Your task to perform on an android device: open app "Venmo" (install if not already installed) and enter user name: "bleedings@gmail.com" and password: "copied" Image 0: 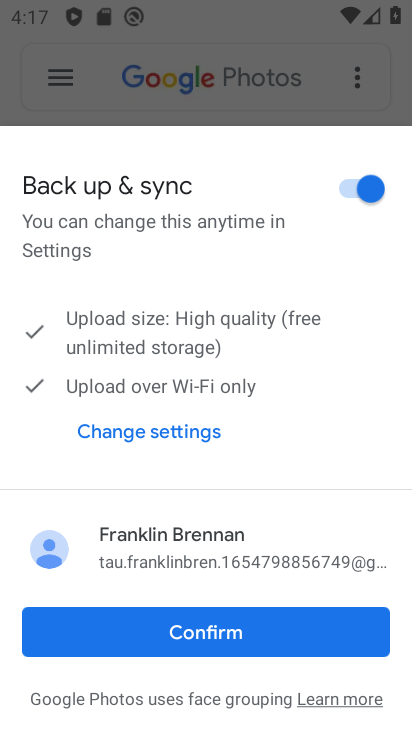
Step 0: press home button
Your task to perform on an android device: open app "Venmo" (install if not already installed) and enter user name: "bleedings@gmail.com" and password: "copied" Image 1: 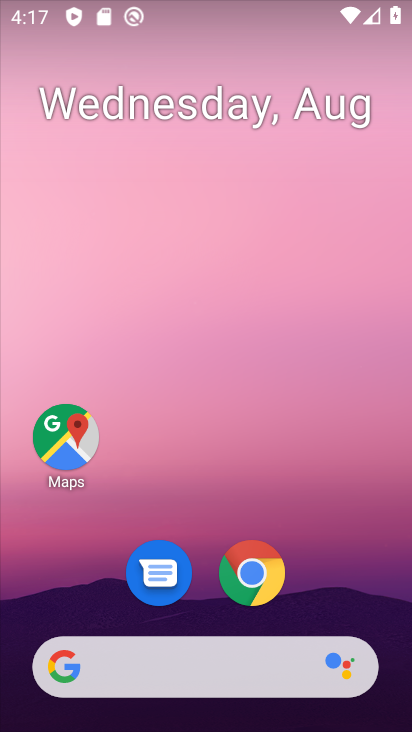
Step 1: drag from (188, 522) to (110, 122)
Your task to perform on an android device: open app "Venmo" (install if not already installed) and enter user name: "bleedings@gmail.com" and password: "copied" Image 2: 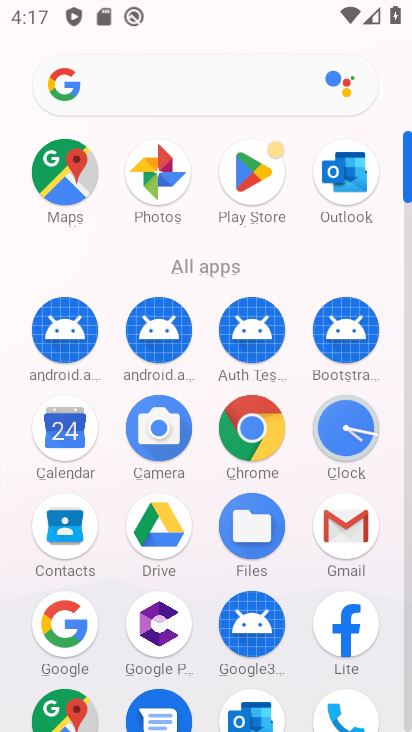
Step 2: click (233, 175)
Your task to perform on an android device: open app "Venmo" (install if not already installed) and enter user name: "bleedings@gmail.com" and password: "copied" Image 3: 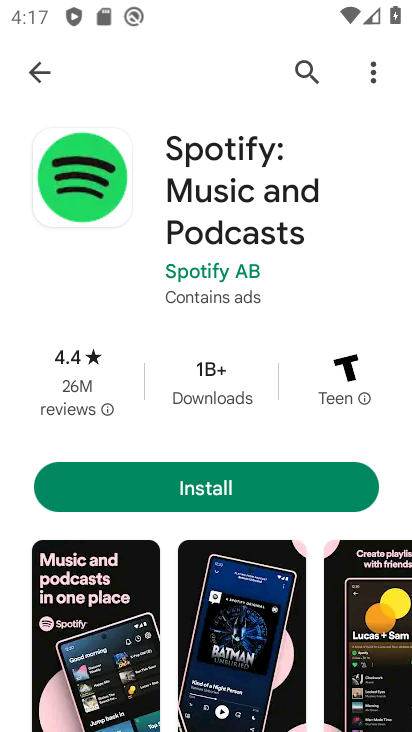
Step 3: click (299, 63)
Your task to perform on an android device: open app "Venmo" (install if not already installed) and enter user name: "bleedings@gmail.com" and password: "copied" Image 4: 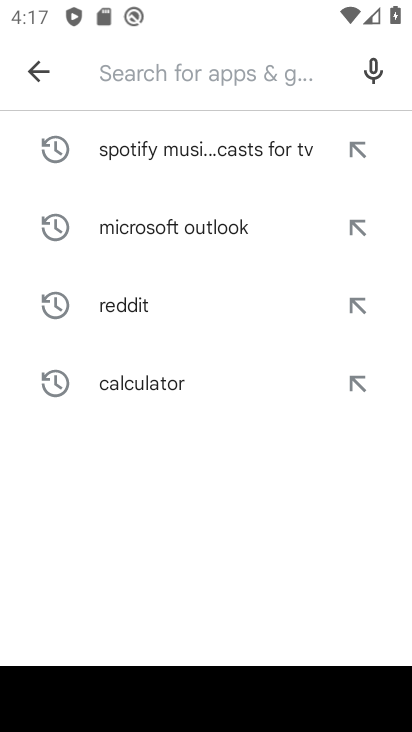
Step 4: type "Venmo"
Your task to perform on an android device: open app "Venmo" (install if not already installed) and enter user name: "bleedings@gmail.com" and password: "copied" Image 5: 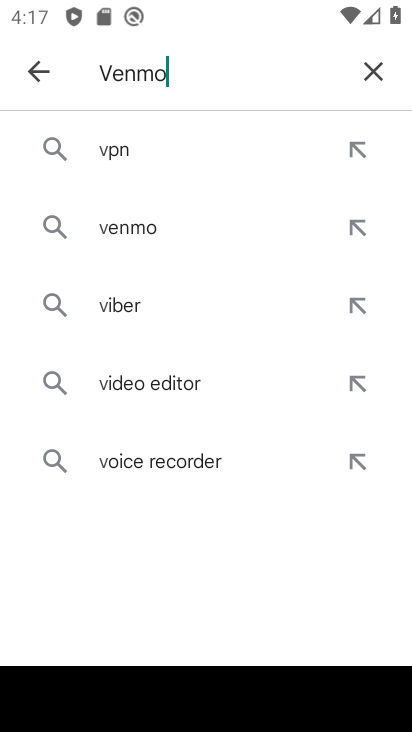
Step 5: type ""
Your task to perform on an android device: open app "Venmo" (install if not already installed) and enter user name: "bleedings@gmail.com" and password: "copied" Image 6: 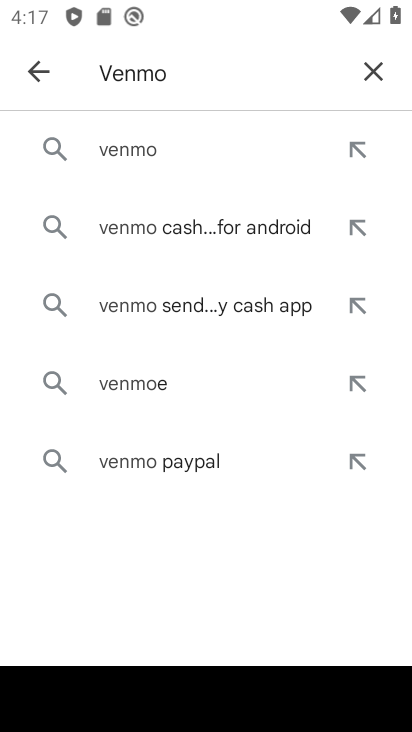
Step 6: click (199, 131)
Your task to perform on an android device: open app "Venmo" (install if not already installed) and enter user name: "bleedings@gmail.com" and password: "copied" Image 7: 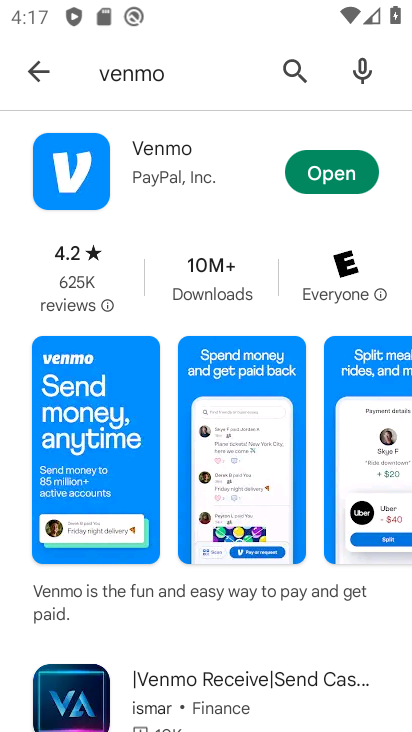
Step 7: click (304, 166)
Your task to perform on an android device: open app "Venmo" (install if not already installed) and enter user name: "bleedings@gmail.com" and password: "copied" Image 8: 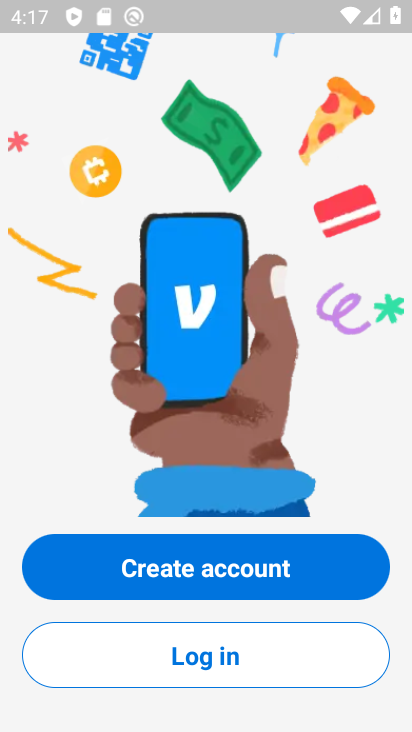
Step 8: task complete